Your task to perform on an android device: open app "Indeed Job Search" (install if not already installed) and go to login screen Image 0: 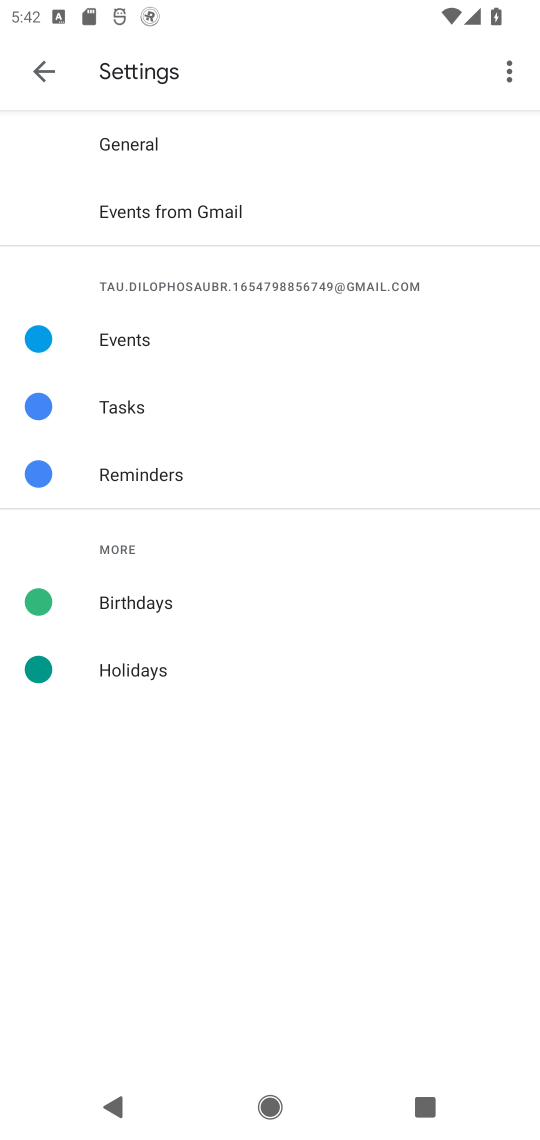
Step 0: press home button
Your task to perform on an android device: open app "Indeed Job Search" (install if not already installed) and go to login screen Image 1: 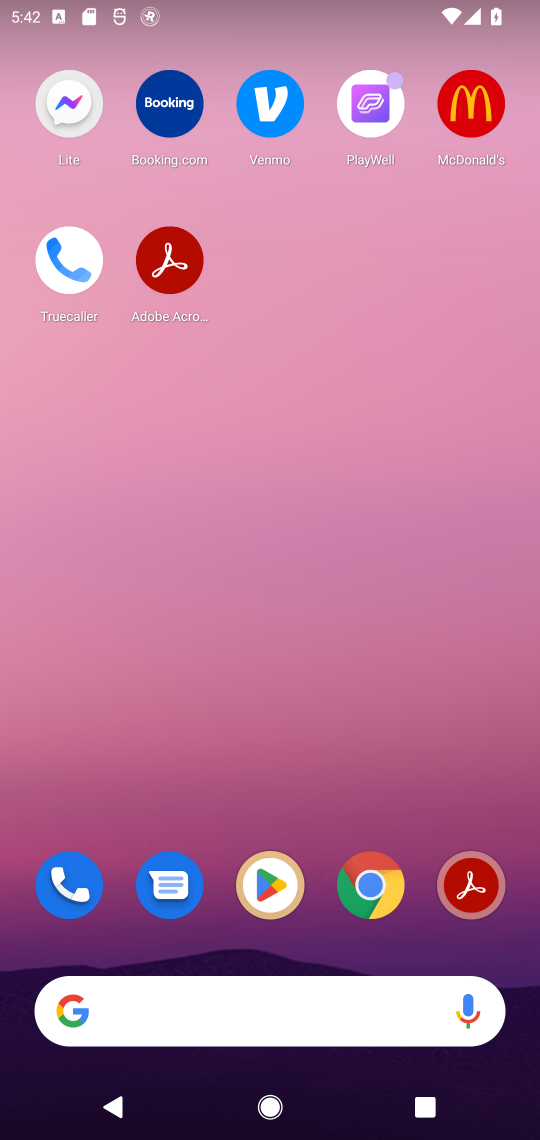
Step 1: click (271, 885)
Your task to perform on an android device: open app "Indeed Job Search" (install if not already installed) and go to login screen Image 2: 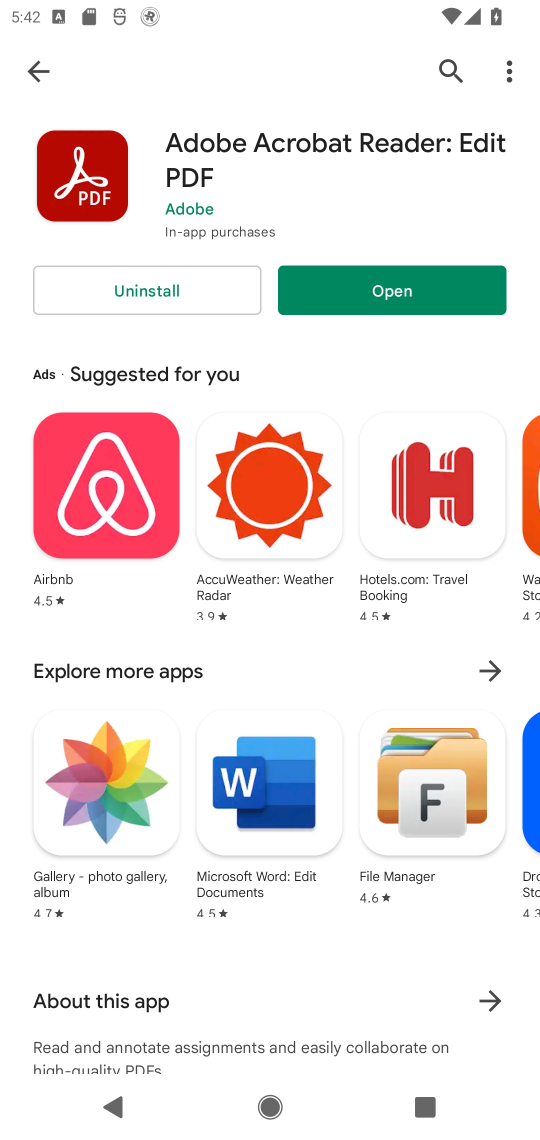
Step 2: click (449, 61)
Your task to perform on an android device: open app "Indeed Job Search" (install if not already installed) and go to login screen Image 3: 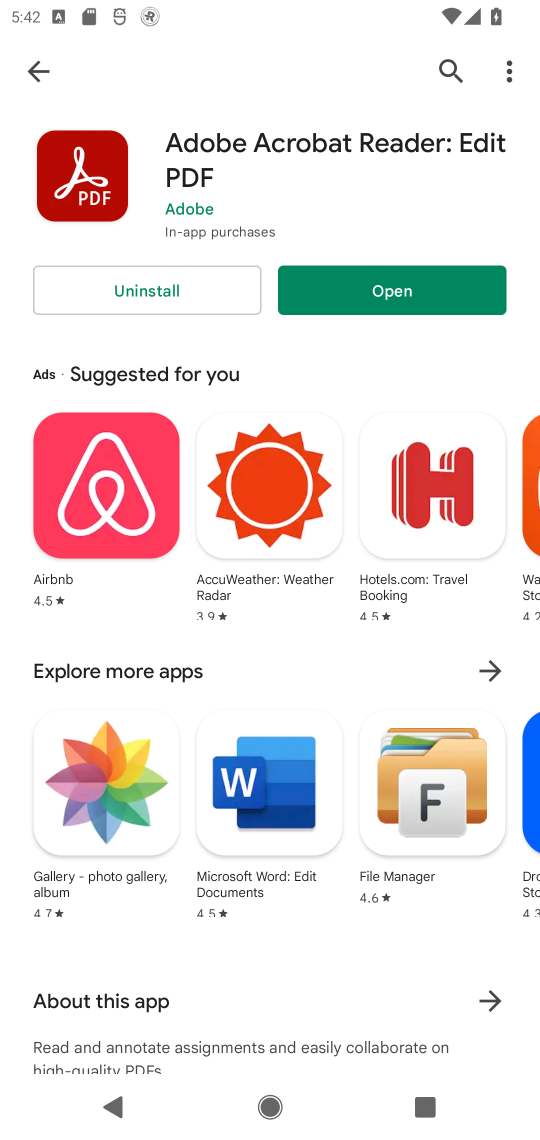
Step 3: click (445, 71)
Your task to perform on an android device: open app "Indeed Job Search" (install if not already installed) and go to login screen Image 4: 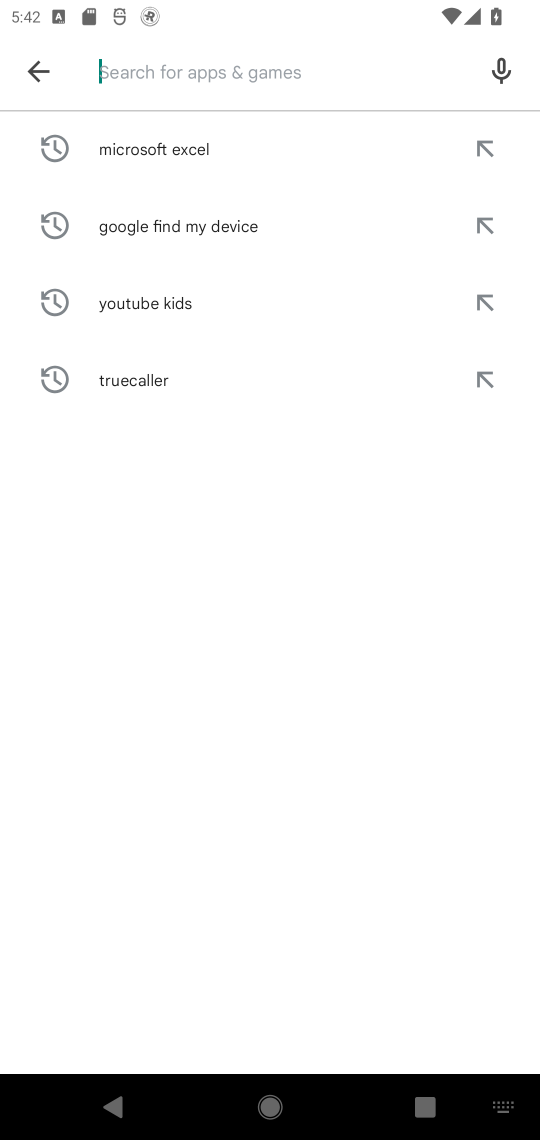
Step 4: click (154, 76)
Your task to perform on an android device: open app "Indeed Job Search" (install if not already installed) and go to login screen Image 5: 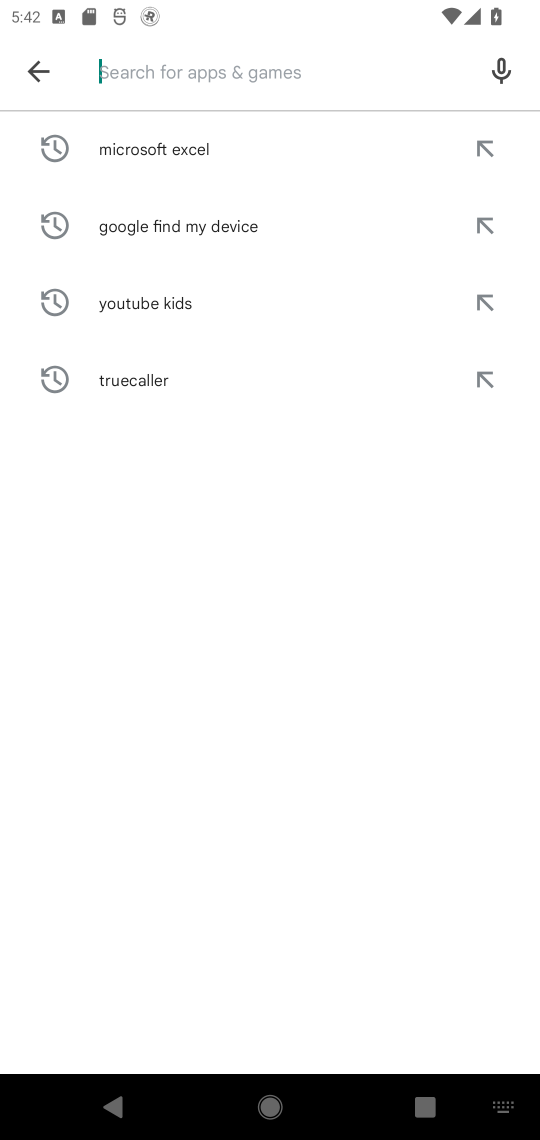
Step 5: type "Indeed Job Search"
Your task to perform on an android device: open app "Indeed Job Search" (install if not already installed) and go to login screen Image 6: 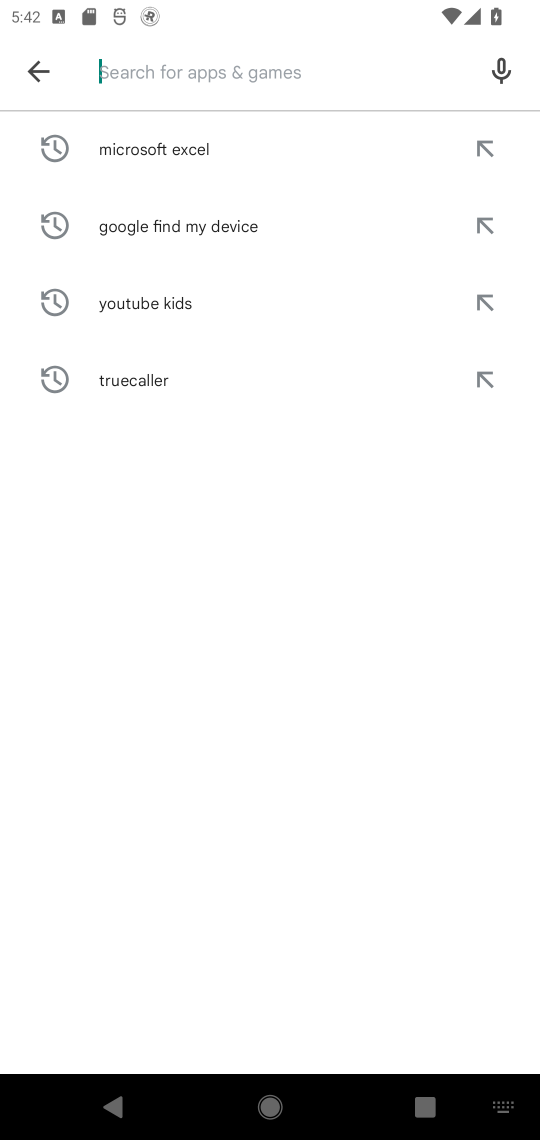
Step 6: click (230, 587)
Your task to perform on an android device: open app "Indeed Job Search" (install if not already installed) and go to login screen Image 7: 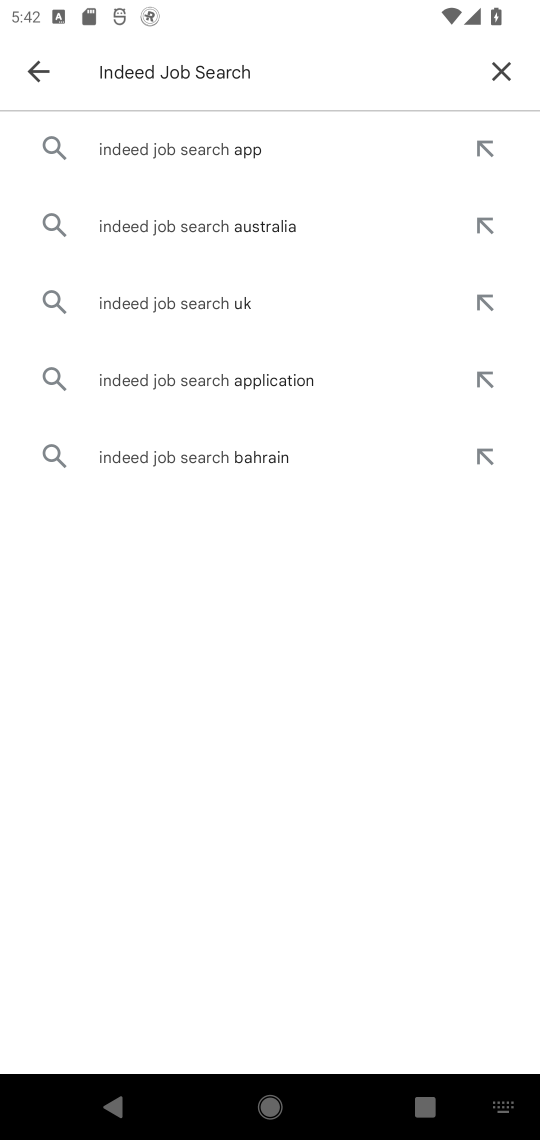
Step 7: click (260, 152)
Your task to perform on an android device: open app "Indeed Job Search" (install if not already installed) and go to login screen Image 8: 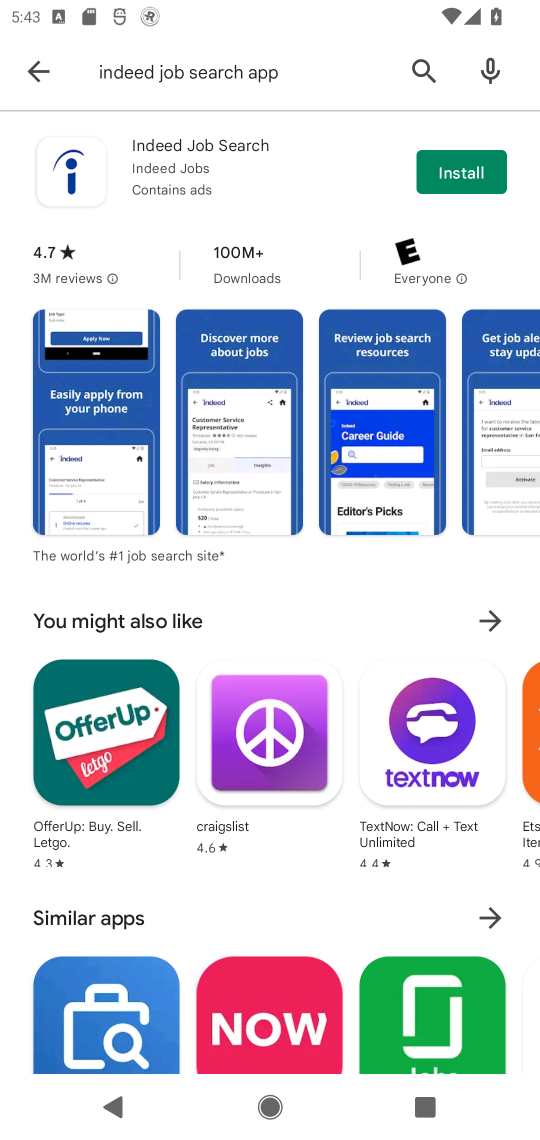
Step 8: click (438, 176)
Your task to perform on an android device: open app "Indeed Job Search" (install if not already installed) and go to login screen Image 9: 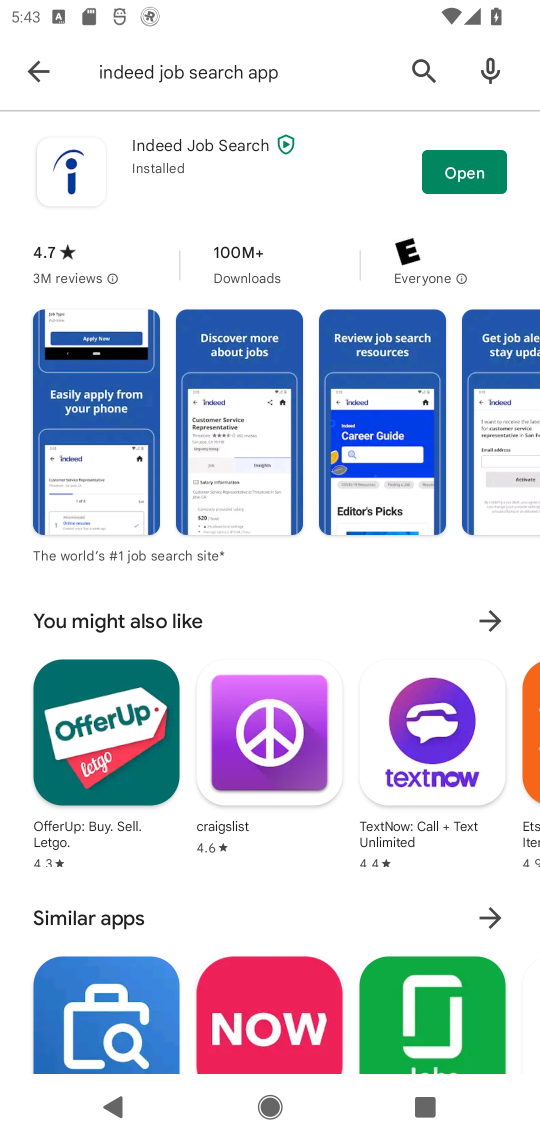
Step 9: click (466, 171)
Your task to perform on an android device: open app "Indeed Job Search" (install if not already installed) and go to login screen Image 10: 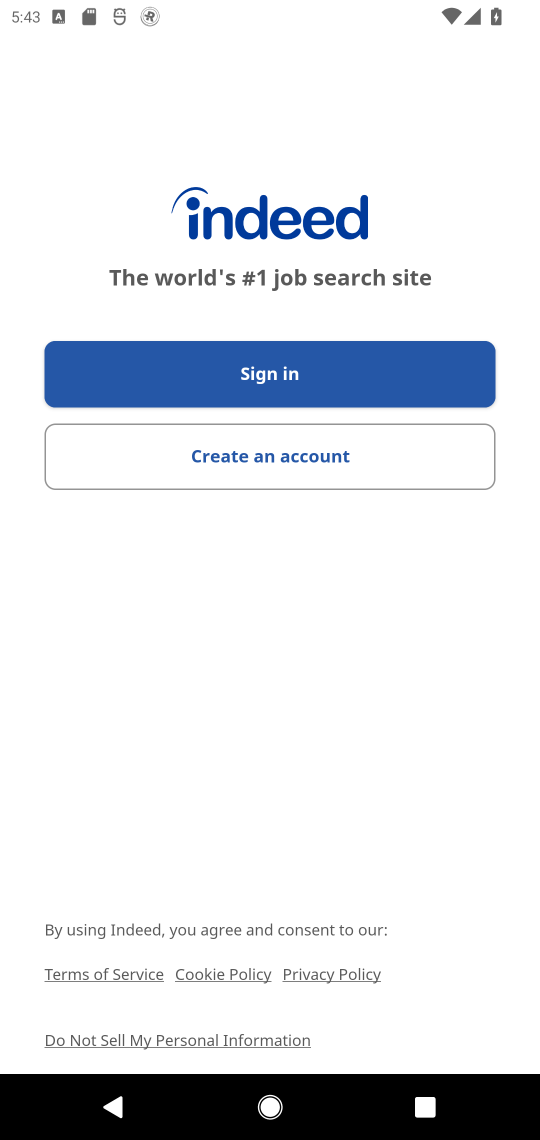
Step 10: task complete